Your task to perform on an android device: Open battery settings Image 0: 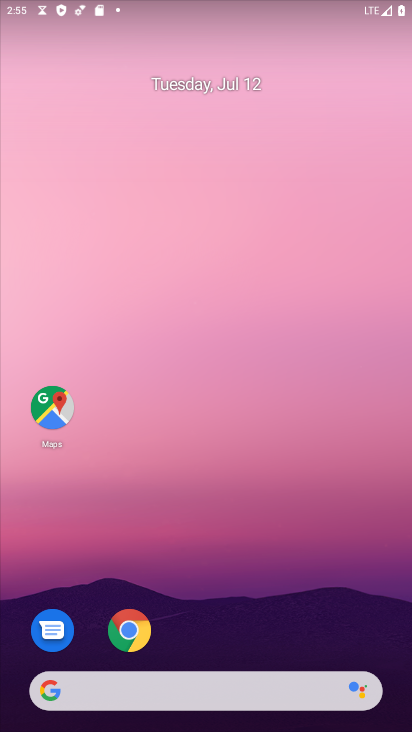
Step 0: drag from (218, 672) to (300, 102)
Your task to perform on an android device: Open battery settings Image 1: 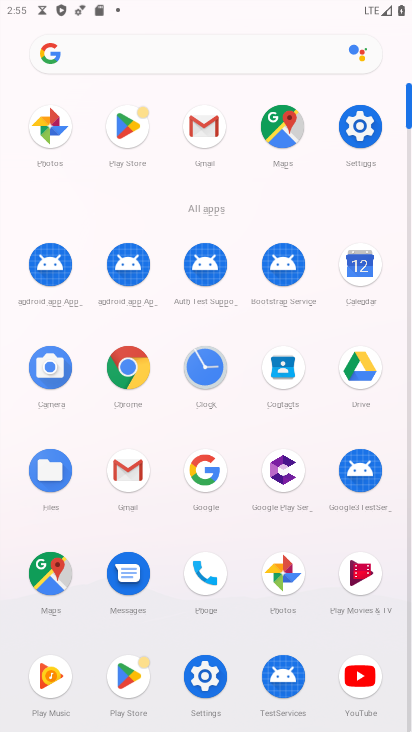
Step 1: click (207, 681)
Your task to perform on an android device: Open battery settings Image 2: 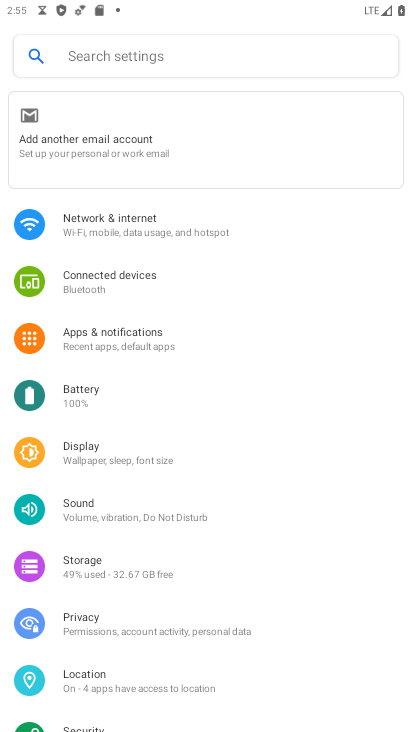
Step 2: click (94, 394)
Your task to perform on an android device: Open battery settings Image 3: 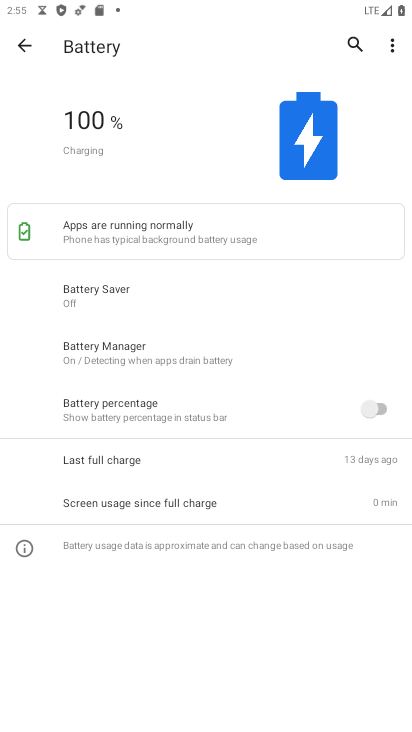
Step 3: task complete